Your task to perform on an android device: Open Maps and search for coffee Image 0: 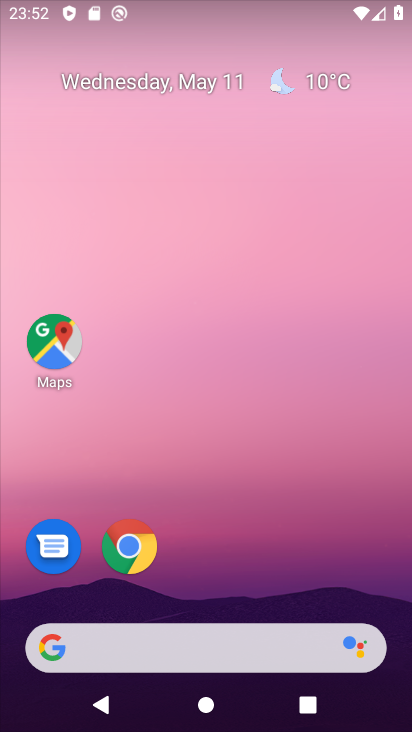
Step 0: click (56, 341)
Your task to perform on an android device: Open Maps and search for coffee Image 1: 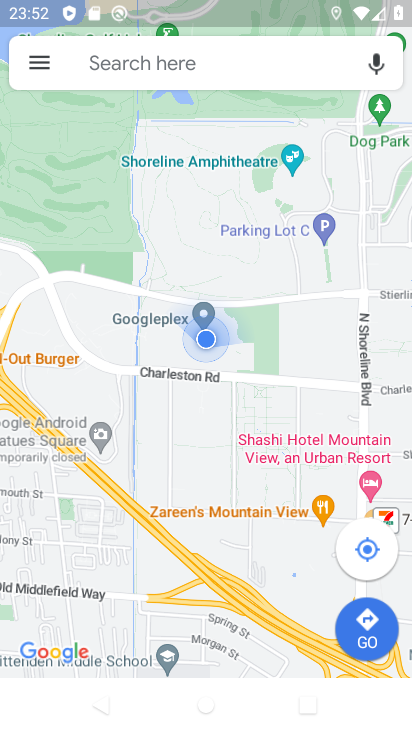
Step 1: click (144, 70)
Your task to perform on an android device: Open Maps and search for coffee Image 2: 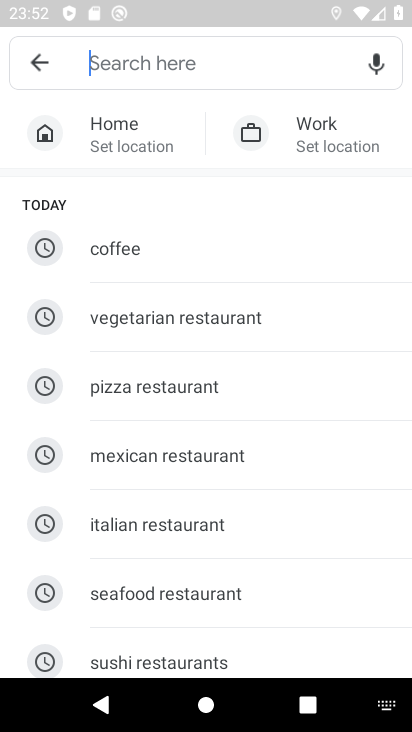
Step 2: type "coffee"
Your task to perform on an android device: Open Maps and search for coffee Image 3: 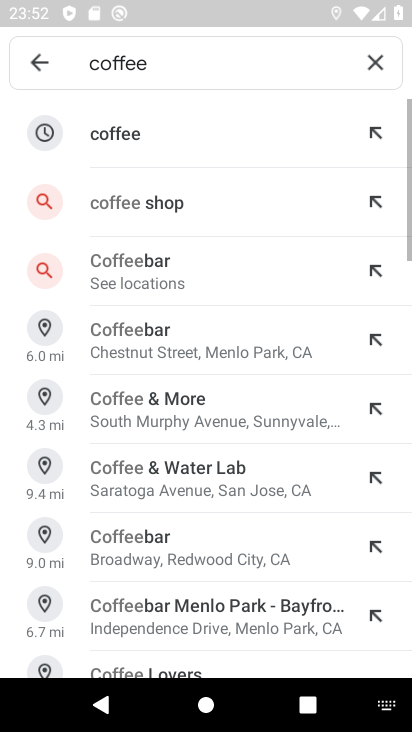
Step 3: click (158, 136)
Your task to perform on an android device: Open Maps and search for coffee Image 4: 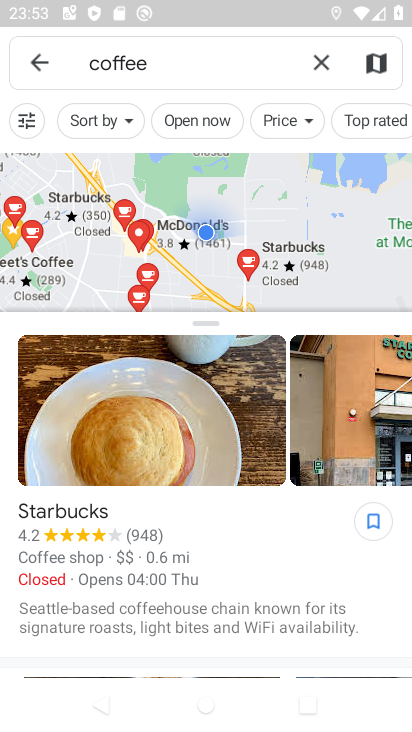
Step 4: task complete